Your task to perform on an android device: set the stopwatch Image 0: 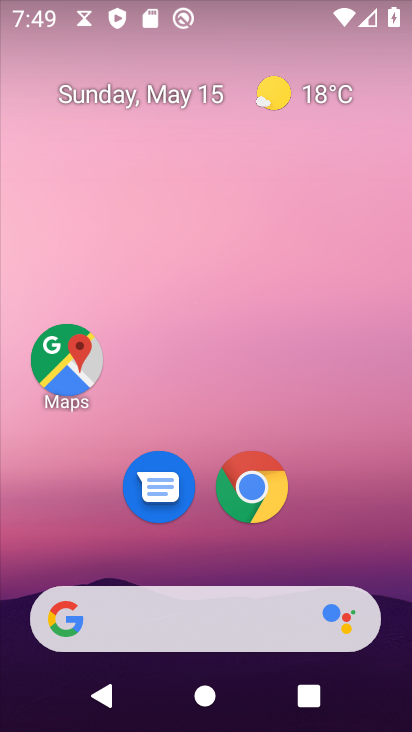
Step 0: drag from (209, 570) to (237, 171)
Your task to perform on an android device: set the stopwatch Image 1: 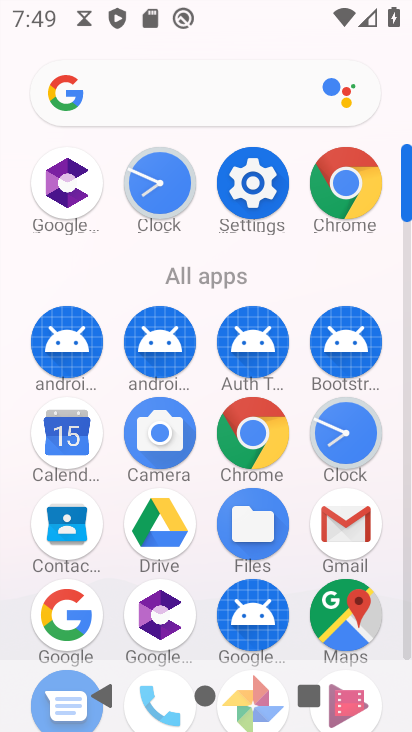
Step 1: click (150, 196)
Your task to perform on an android device: set the stopwatch Image 2: 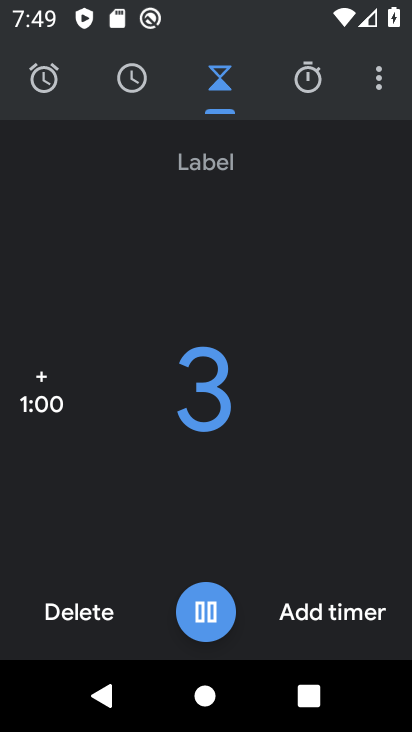
Step 2: click (319, 71)
Your task to perform on an android device: set the stopwatch Image 3: 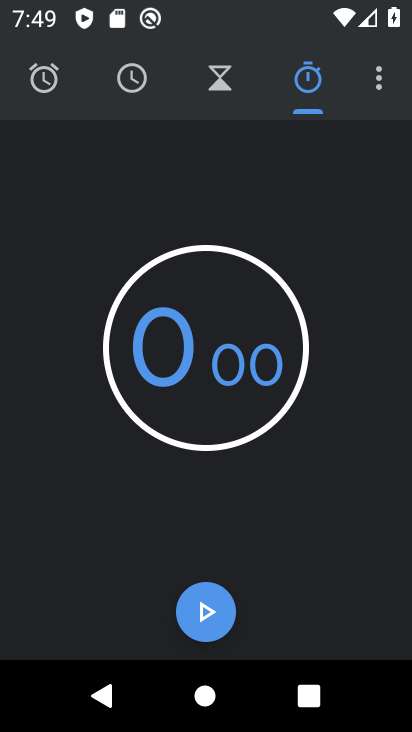
Step 3: click (219, 608)
Your task to perform on an android device: set the stopwatch Image 4: 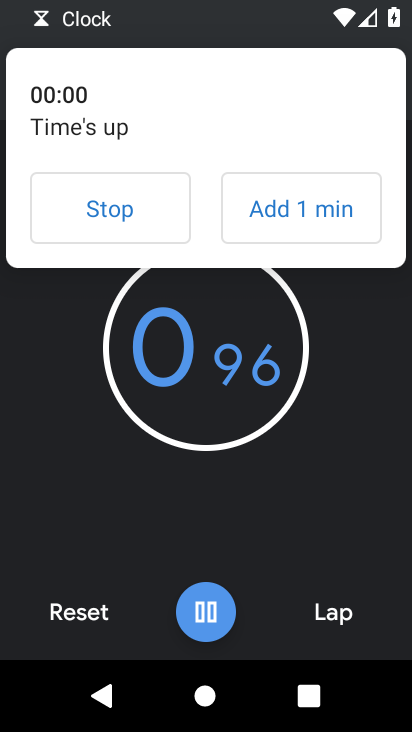
Step 4: task complete